Your task to perform on an android device: find which apps use the phone's location Image 0: 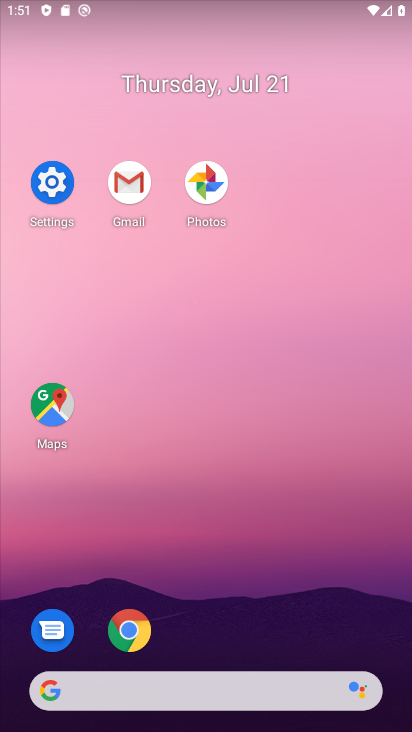
Step 0: click (49, 164)
Your task to perform on an android device: find which apps use the phone's location Image 1: 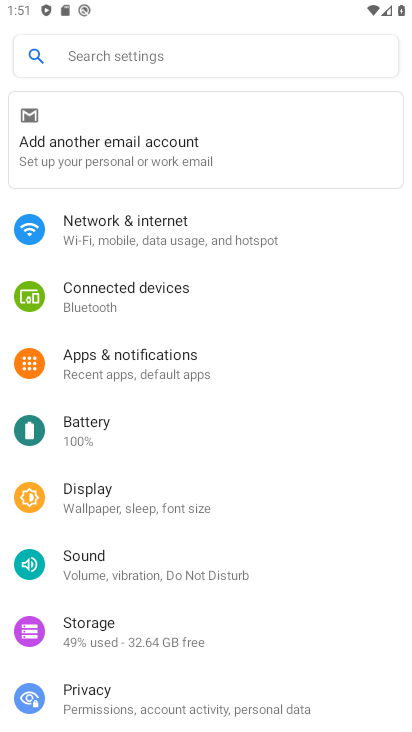
Step 1: drag from (146, 655) to (168, 354)
Your task to perform on an android device: find which apps use the phone's location Image 2: 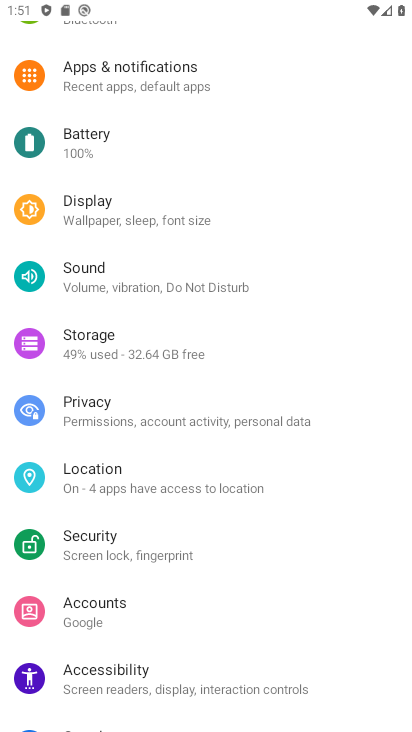
Step 2: click (121, 485)
Your task to perform on an android device: find which apps use the phone's location Image 3: 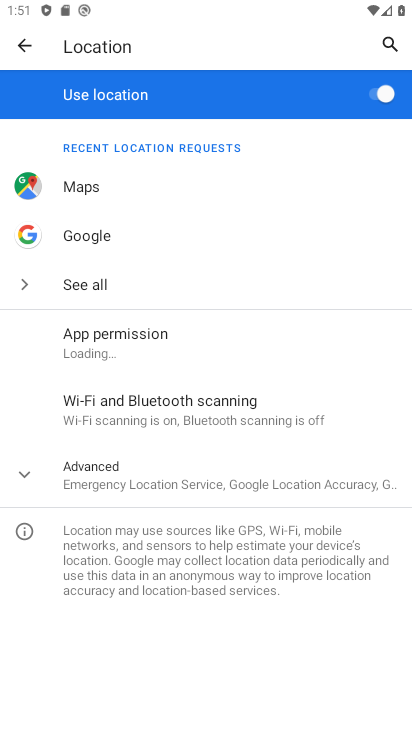
Step 3: task complete